Your task to perform on an android device: toggle location history Image 0: 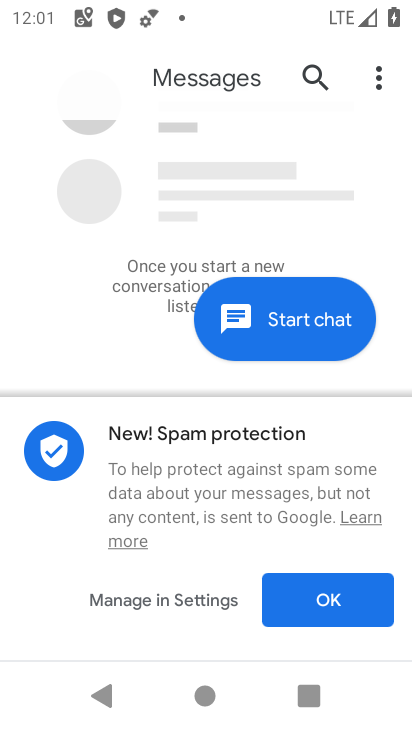
Step 0: press home button
Your task to perform on an android device: toggle location history Image 1: 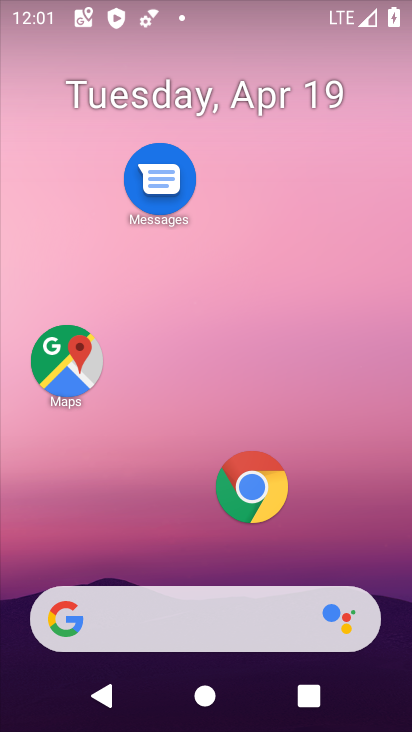
Step 1: drag from (170, 543) to (168, 12)
Your task to perform on an android device: toggle location history Image 2: 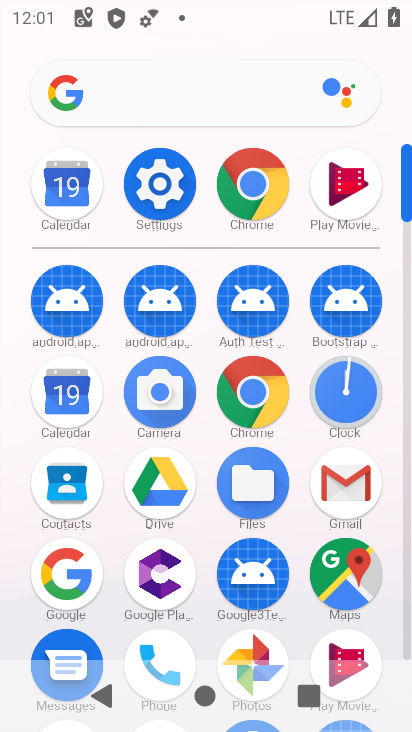
Step 2: click (334, 572)
Your task to perform on an android device: toggle location history Image 3: 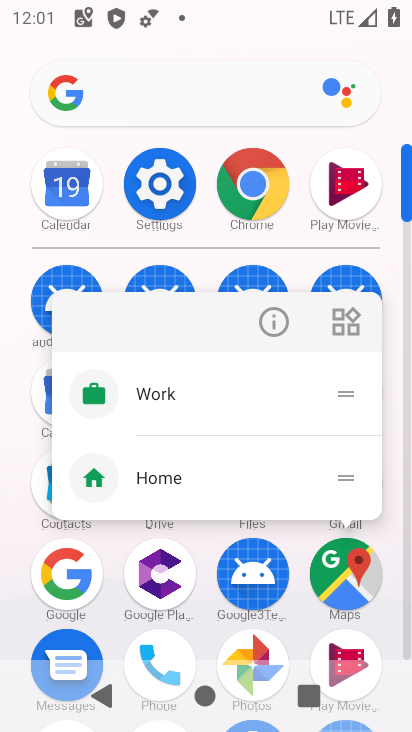
Step 3: click (322, 575)
Your task to perform on an android device: toggle location history Image 4: 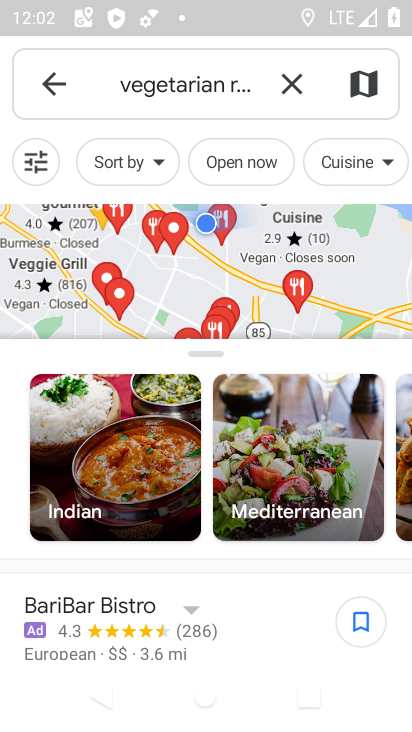
Step 4: click (48, 83)
Your task to perform on an android device: toggle location history Image 5: 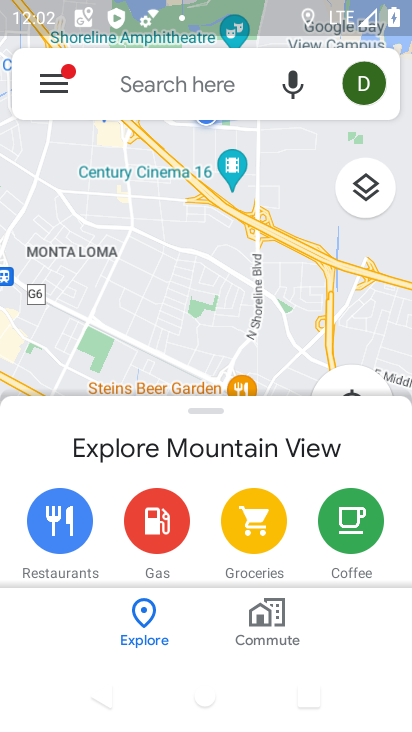
Step 5: click (45, 79)
Your task to perform on an android device: toggle location history Image 6: 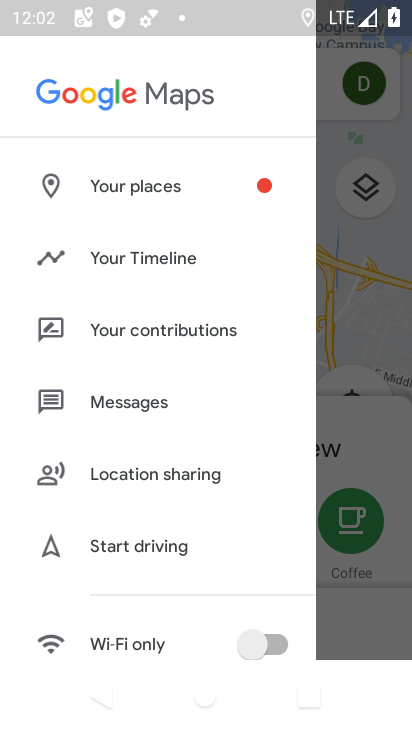
Step 6: drag from (148, 562) to (138, 194)
Your task to perform on an android device: toggle location history Image 7: 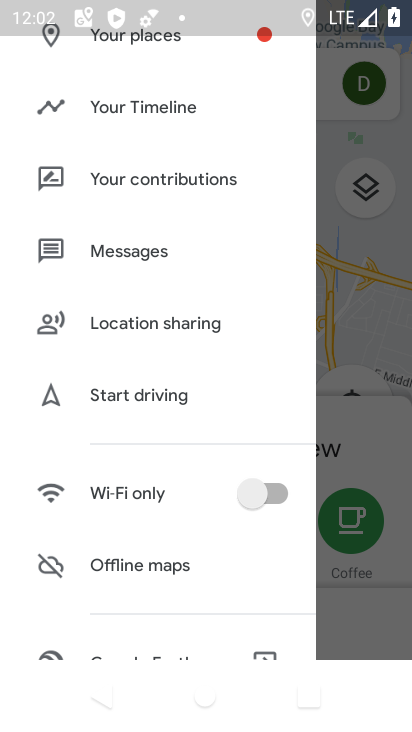
Step 7: click (150, 99)
Your task to perform on an android device: toggle location history Image 8: 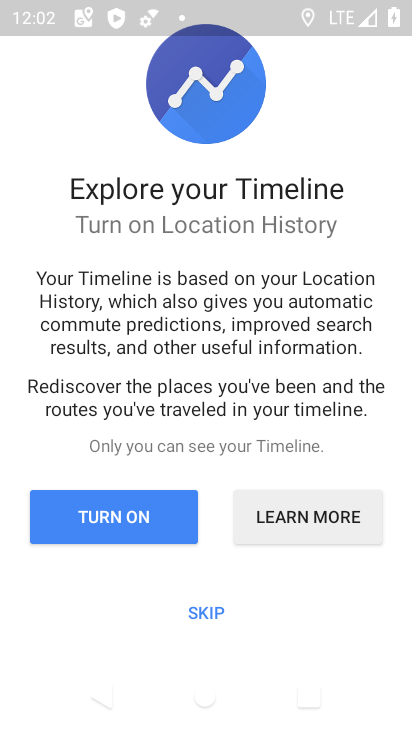
Step 8: click (207, 604)
Your task to perform on an android device: toggle location history Image 9: 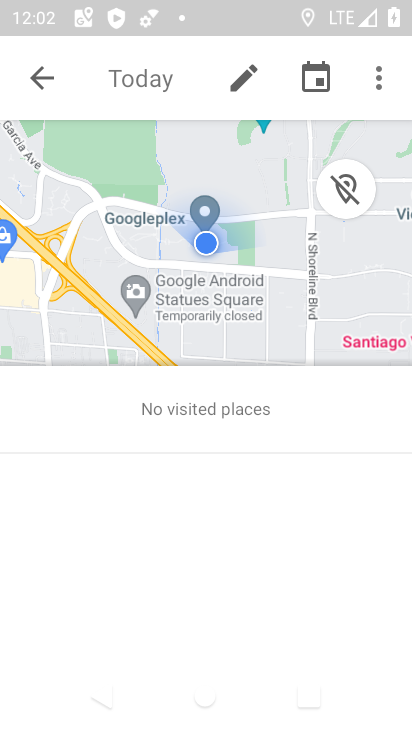
Step 9: click (373, 68)
Your task to perform on an android device: toggle location history Image 10: 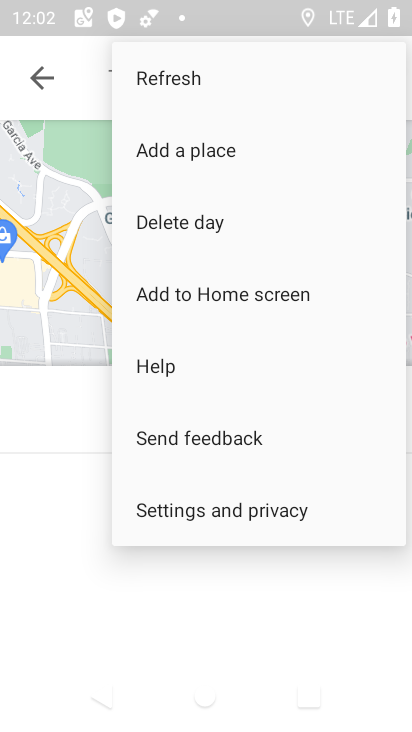
Step 10: click (197, 505)
Your task to perform on an android device: toggle location history Image 11: 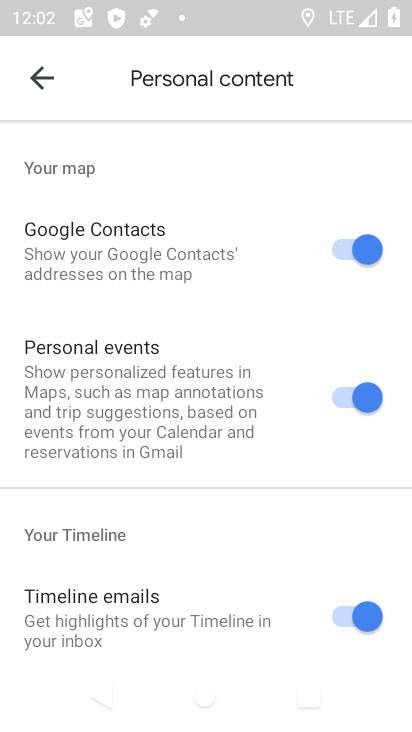
Step 11: drag from (157, 480) to (146, 173)
Your task to perform on an android device: toggle location history Image 12: 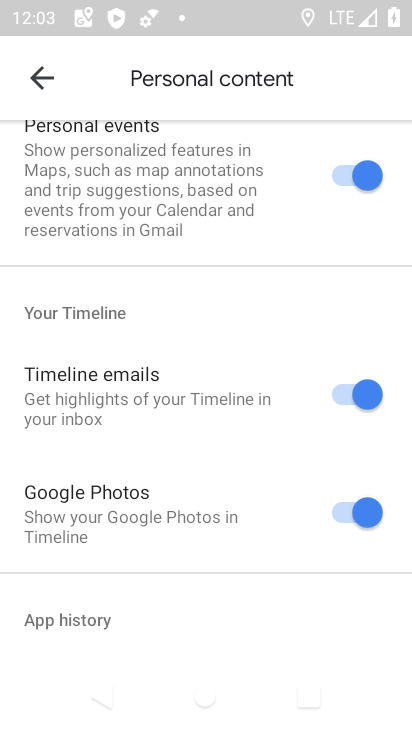
Step 12: drag from (110, 542) to (104, 161)
Your task to perform on an android device: toggle location history Image 13: 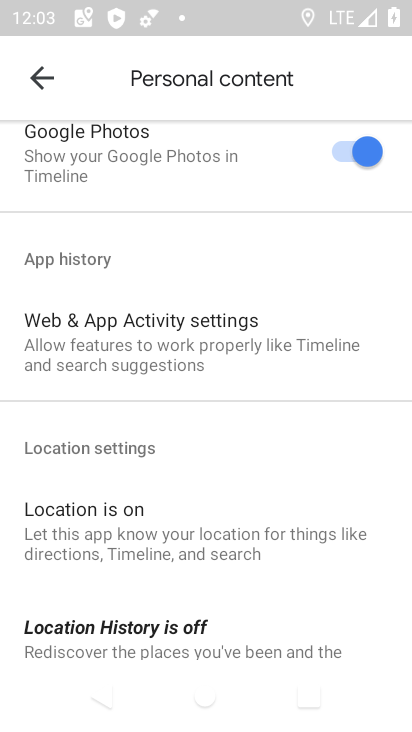
Step 13: drag from (171, 572) to (156, 290)
Your task to perform on an android device: toggle location history Image 14: 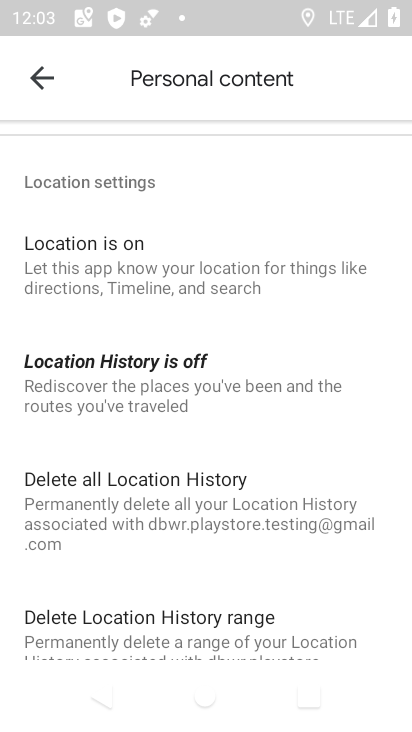
Step 14: click (120, 362)
Your task to perform on an android device: toggle location history Image 15: 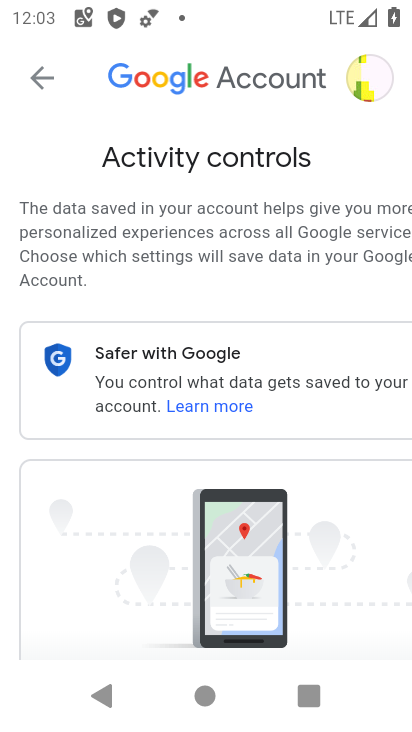
Step 15: drag from (103, 539) to (95, 187)
Your task to perform on an android device: toggle location history Image 16: 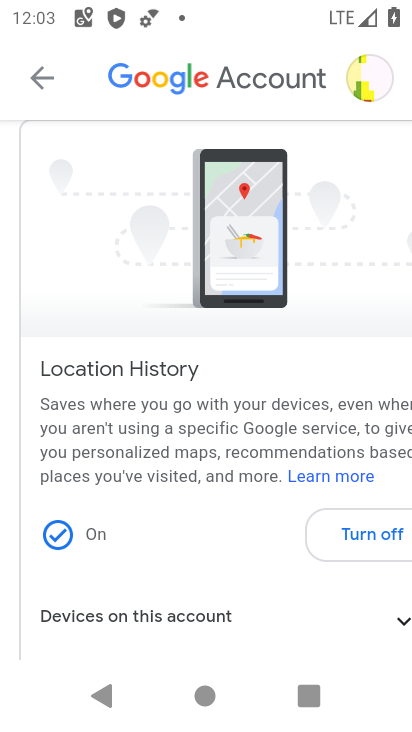
Step 16: click (340, 537)
Your task to perform on an android device: toggle location history Image 17: 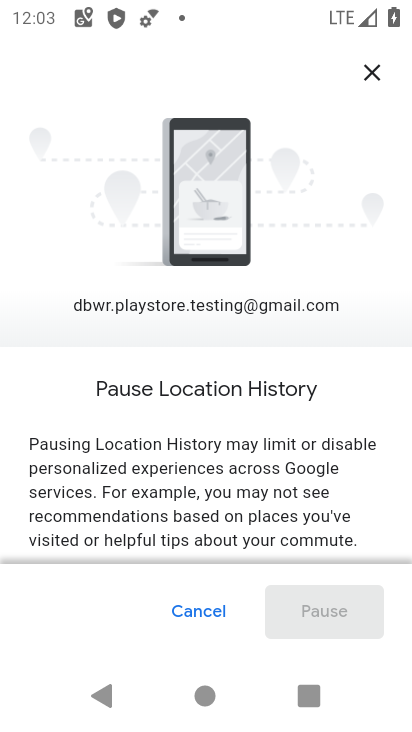
Step 17: drag from (325, 429) to (326, 192)
Your task to perform on an android device: toggle location history Image 18: 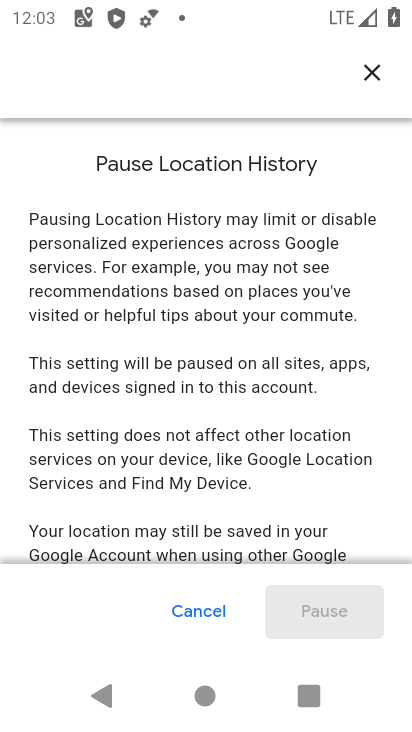
Step 18: drag from (287, 486) to (250, 174)
Your task to perform on an android device: toggle location history Image 19: 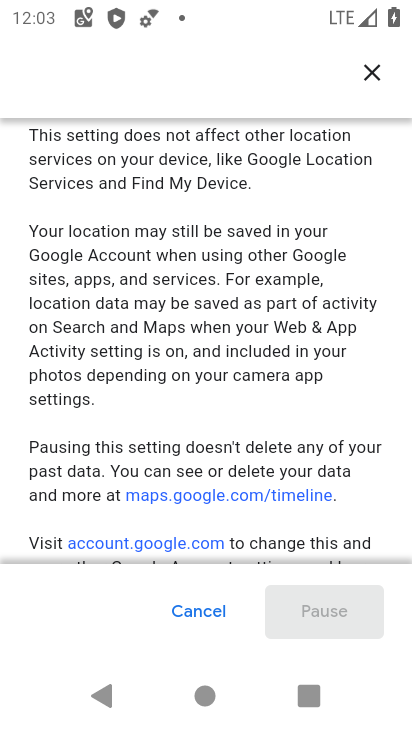
Step 19: drag from (219, 443) to (198, 224)
Your task to perform on an android device: toggle location history Image 20: 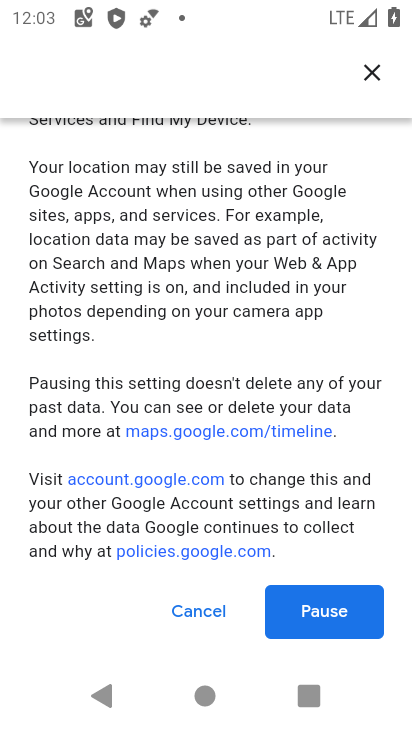
Step 20: click (305, 619)
Your task to perform on an android device: toggle location history Image 21: 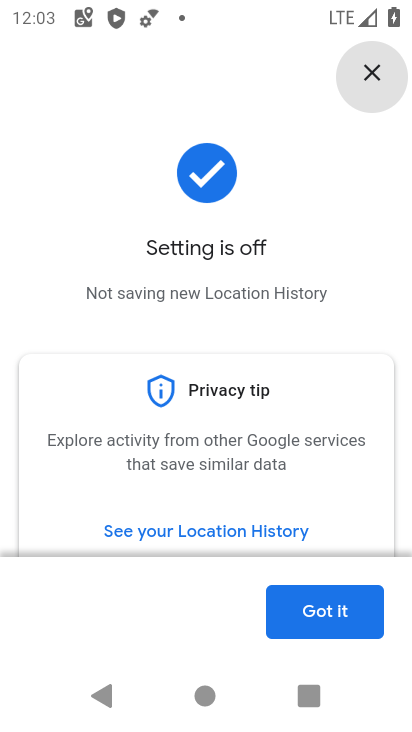
Step 21: click (277, 603)
Your task to perform on an android device: toggle location history Image 22: 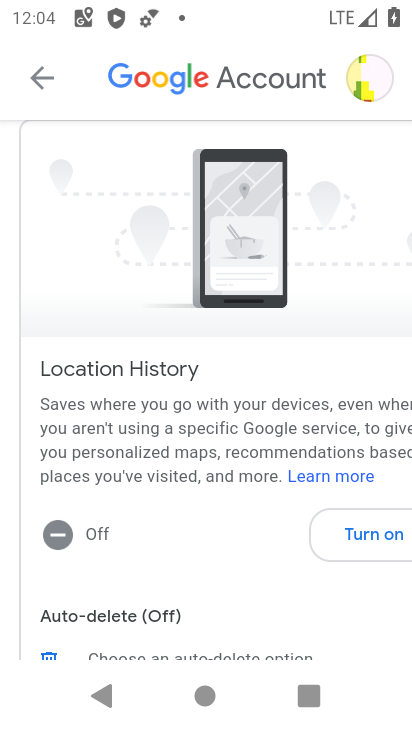
Step 22: task complete